Your task to perform on an android device: toggle sleep mode Image 0: 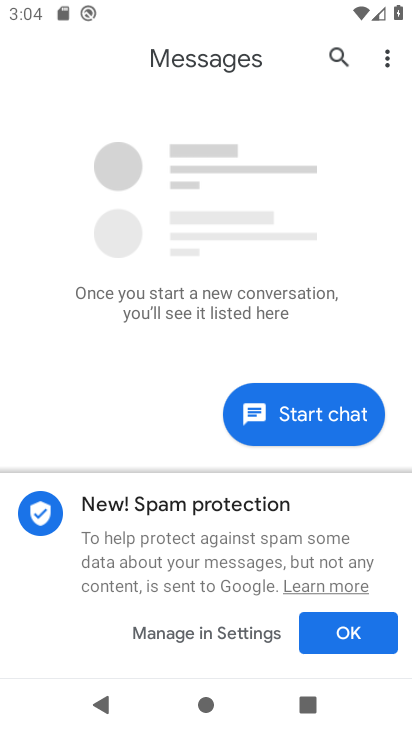
Step 0: press home button
Your task to perform on an android device: toggle sleep mode Image 1: 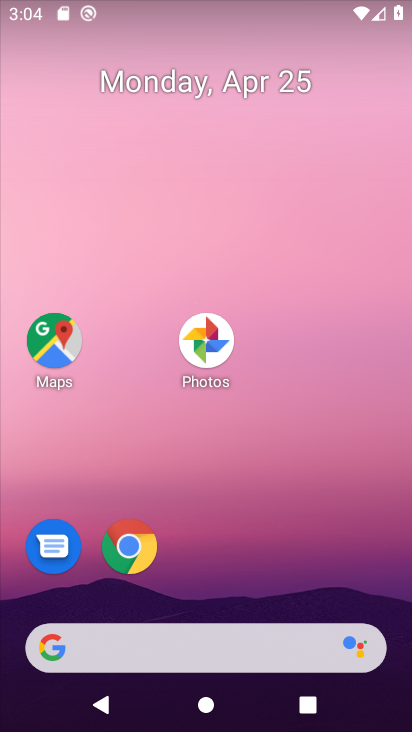
Step 1: drag from (261, 500) to (265, 457)
Your task to perform on an android device: toggle sleep mode Image 2: 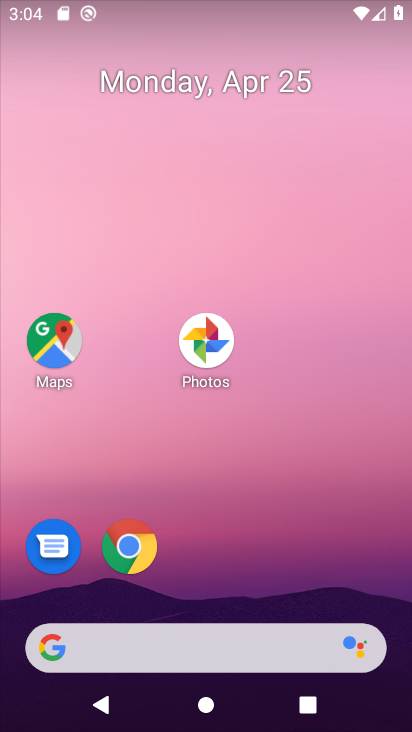
Step 2: drag from (249, 508) to (308, 98)
Your task to perform on an android device: toggle sleep mode Image 3: 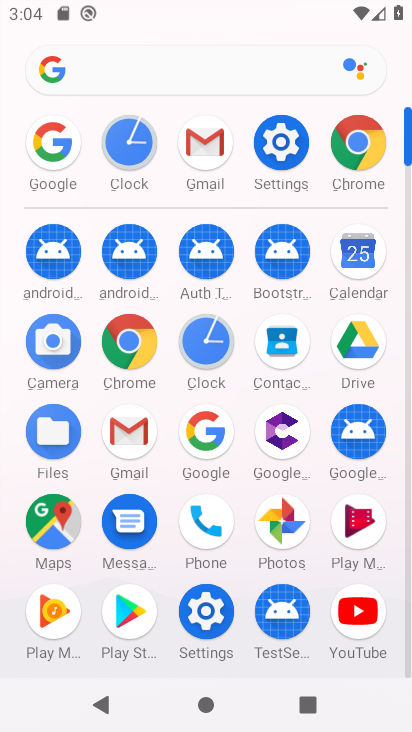
Step 3: click (278, 138)
Your task to perform on an android device: toggle sleep mode Image 4: 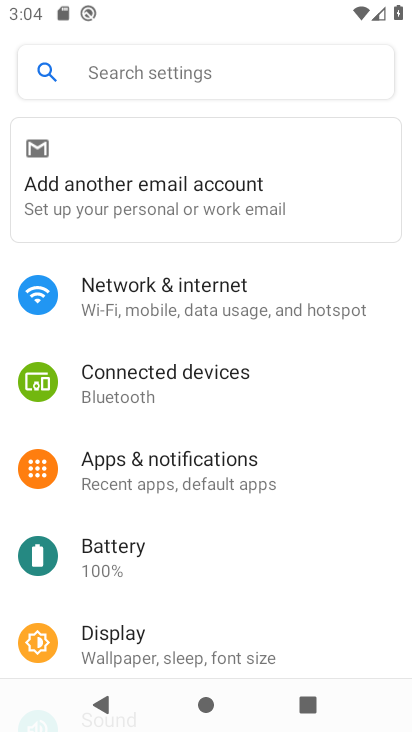
Step 4: task complete